Your task to perform on an android device: clear all cookies in the chrome app Image 0: 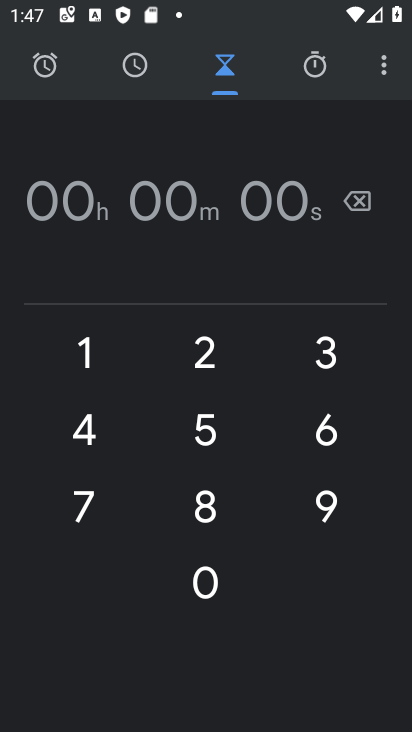
Step 0: drag from (196, 629) to (260, 161)
Your task to perform on an android device: clear all cookies in the chrome app Image 1: 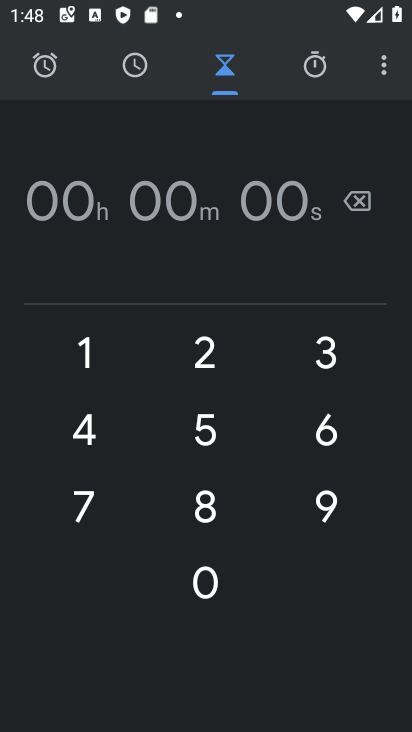
Step 1: click (318, 73)
Your task to perform on an android device: clear all cookies in the chrome app Image 2: 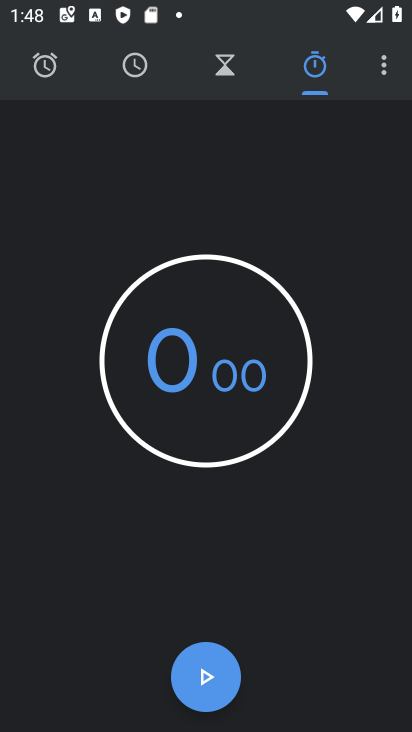
Step 2: click (396, 52)
Your task to perform on an android device: clear all cookies in the chrome app Image 3: 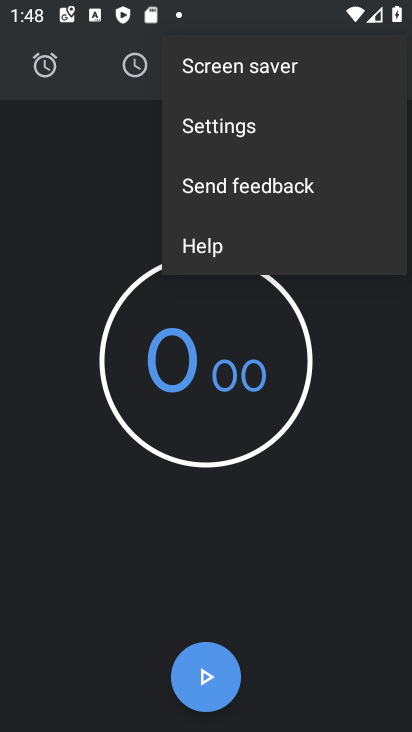
Step 3: click (245, 126)
Your task to perform on an android device: clear all cookies in the chrome app Image 4: 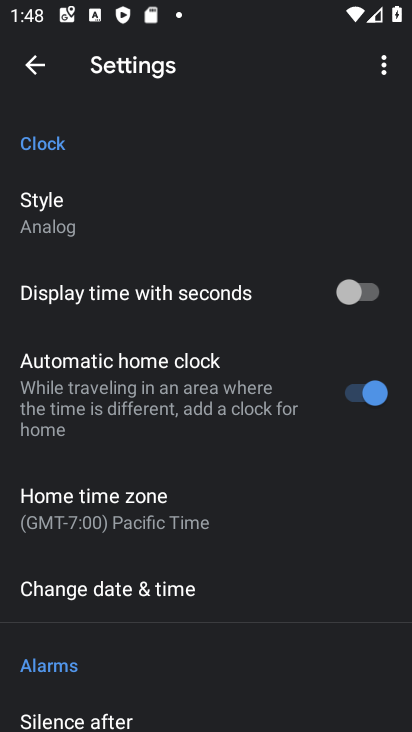
Step 4: press home button
Your task to perform on an android device: clear all cookies in the chrome app Image 5: 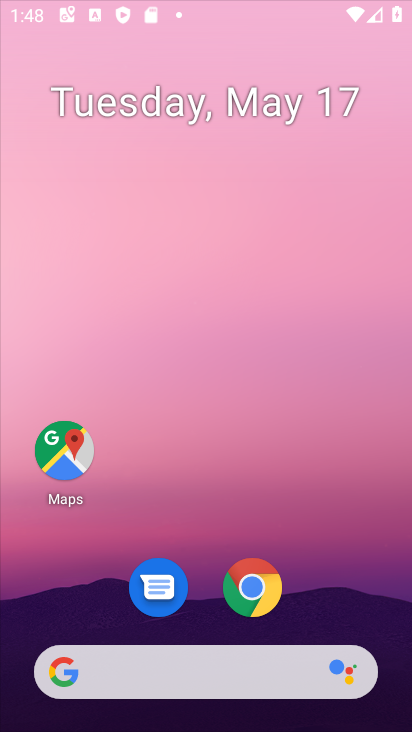
Step 5: drag from (227, 639) to (315, 49)
Your task to perform on an android device: clear all cookies in the chrome app Image 6: 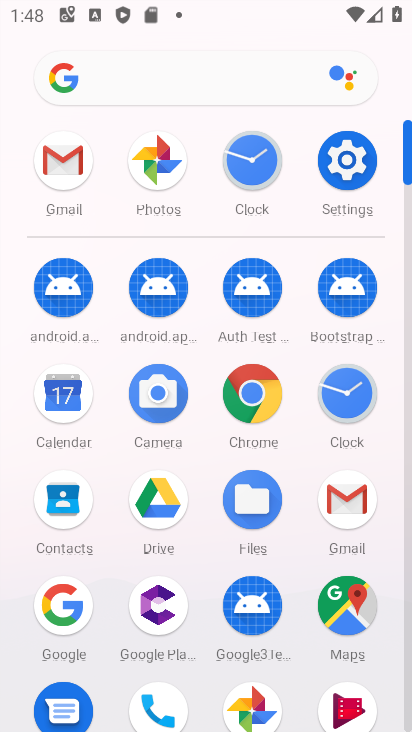
Step 6: click (246, 395)
Your task to perform on an android device: clear all cookies in the chrome app Image 7: 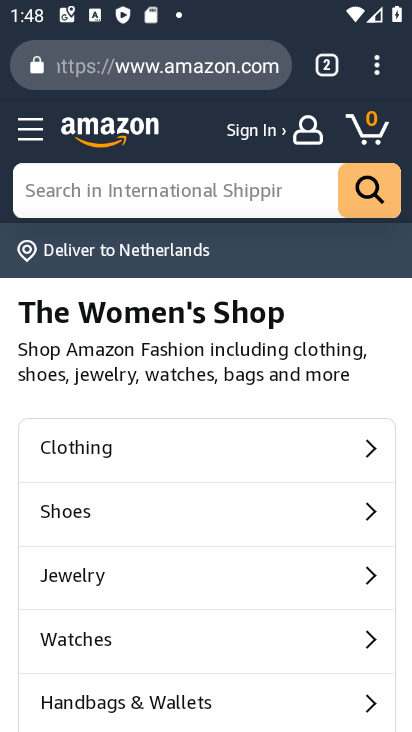
Step 7: drag from (385, 60) to (223, 361)
Your task to perform on an android device: clear all cookies in the chrome app Image 8: 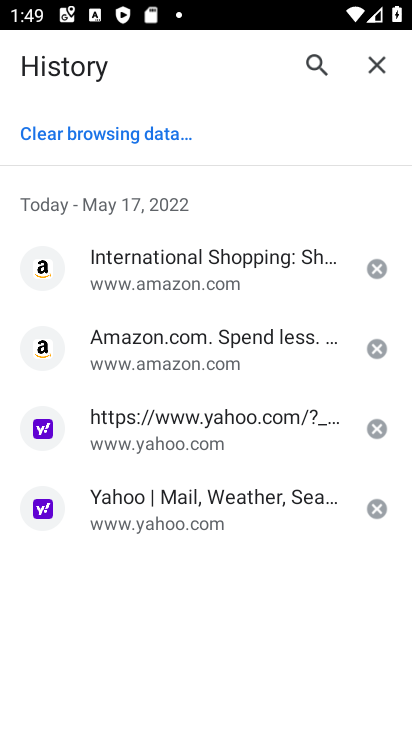
Step 8: click (100, 145)
Your task to perform on an android device: clear all cookies in the chrome app Image 9: 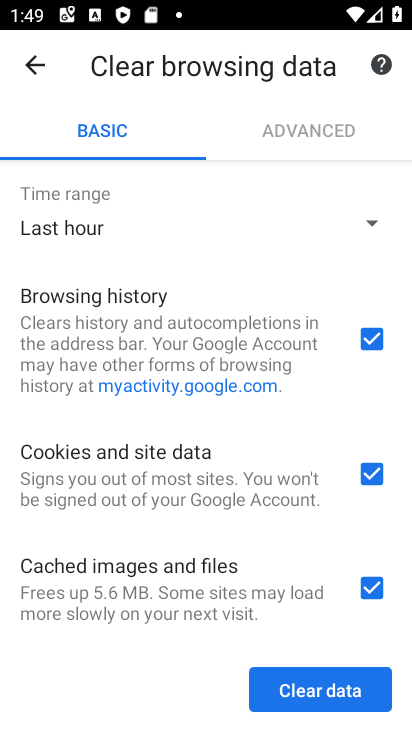
Step 9: click (316, 685)
Your task to perform on an android device: clear all cookies in the chrome app Image 10: 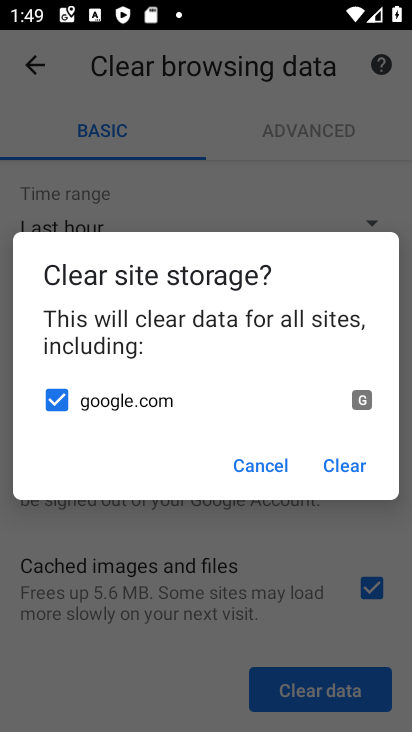
Step 10: click (282, 464)
Your task to perform on an android device: clear all cookies in the chrome app Image 11: 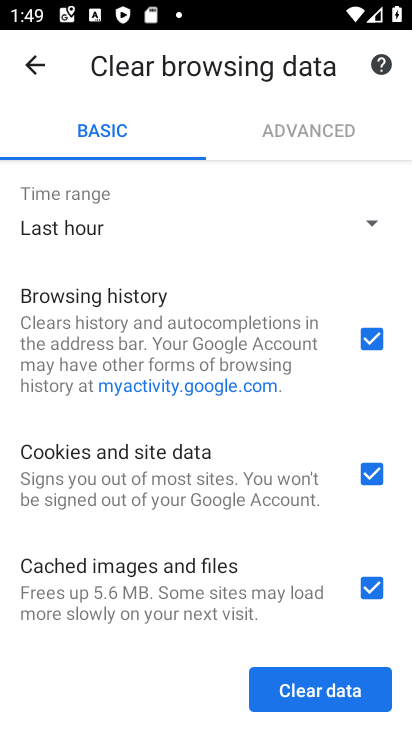
Step 11: click (370, 334)
Your task to perform on an android device: clear all cookies in the chrome app Image 12: 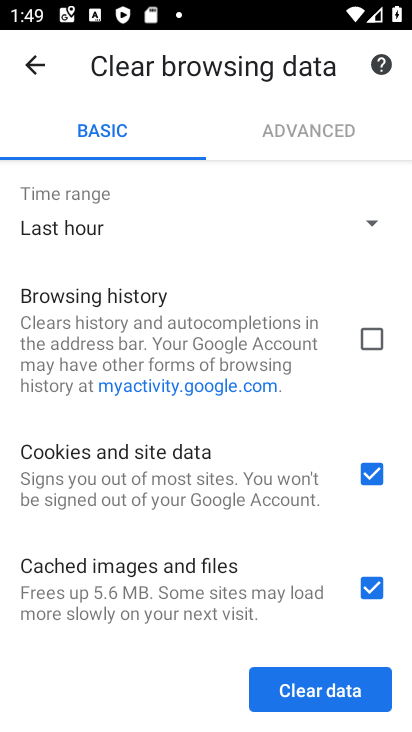
Step 12: click (310, 689)
Your task to perform on an android device: clear all cookies in the chrome app Image 13: 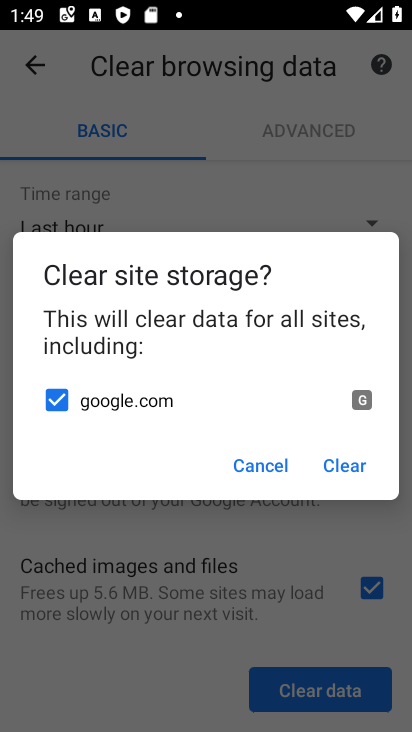
Step 13: click (347, 468)
Your task to perform on an android device: clear all cookies in the chrome app Image 14: 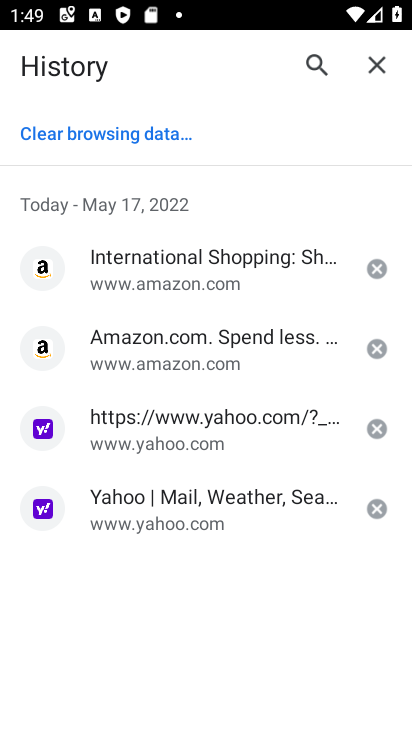
Step 14: task complete